Your task to perform on an android device: What is the recent news? Image 0: 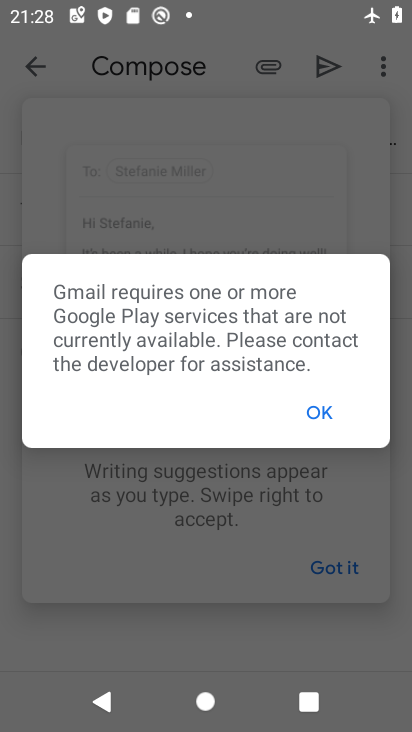
Step 0: press home button
Your task to perform on an android device: What is the recent news? Image 1: 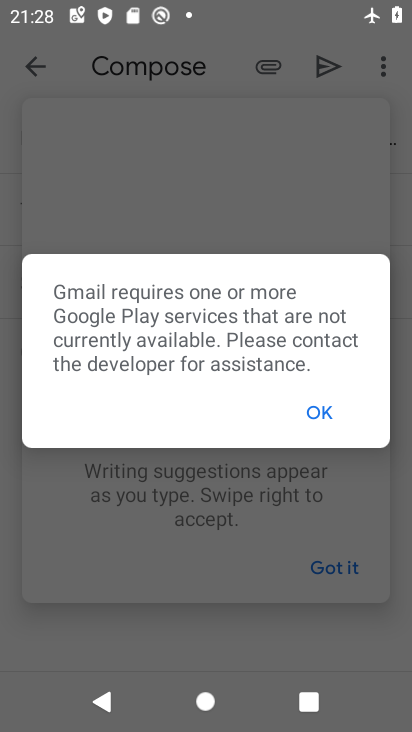
Step 1: press home button
Your task to perform on an android device: What is the recent news? Image 2: 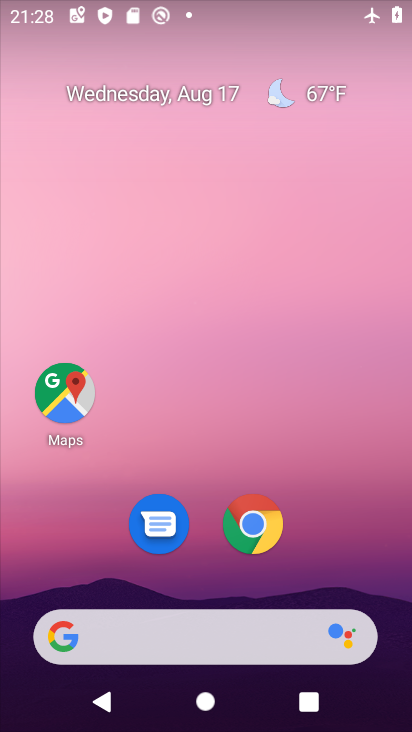
Step 2: click (270, 642)
Your task to perform on an android device: What is the recent news? Image 3: 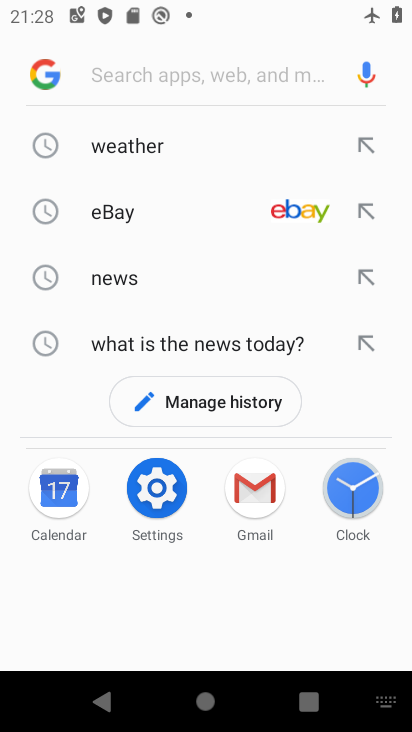
Step 3: click (127, 279)
Your task to perform on an android device: What is the recent news? Image 4: 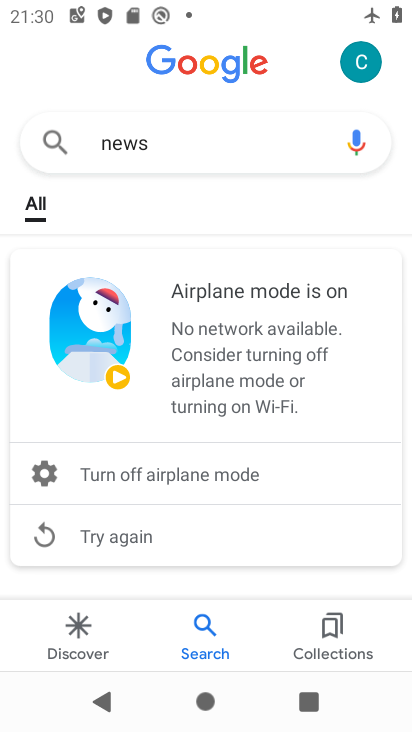
Step 4: task complete